Your task to perform on an android device: Add acer nitro to the cart on bestbuy.com, then select checkout. Image 0: 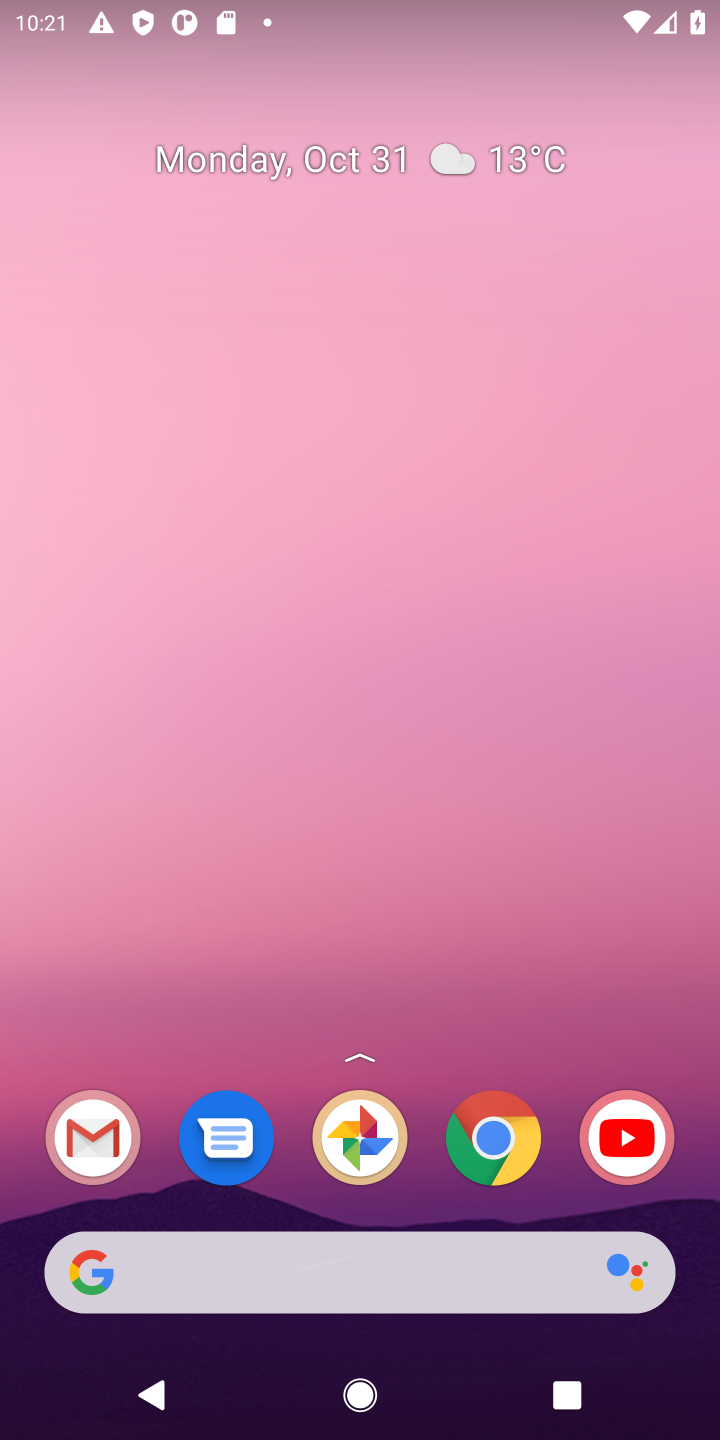
Step 0: click (499, 1153)
Your task to perform on an android device: Add acer nitro to the cart on bestbuy.com, then select checkout. Image 1: 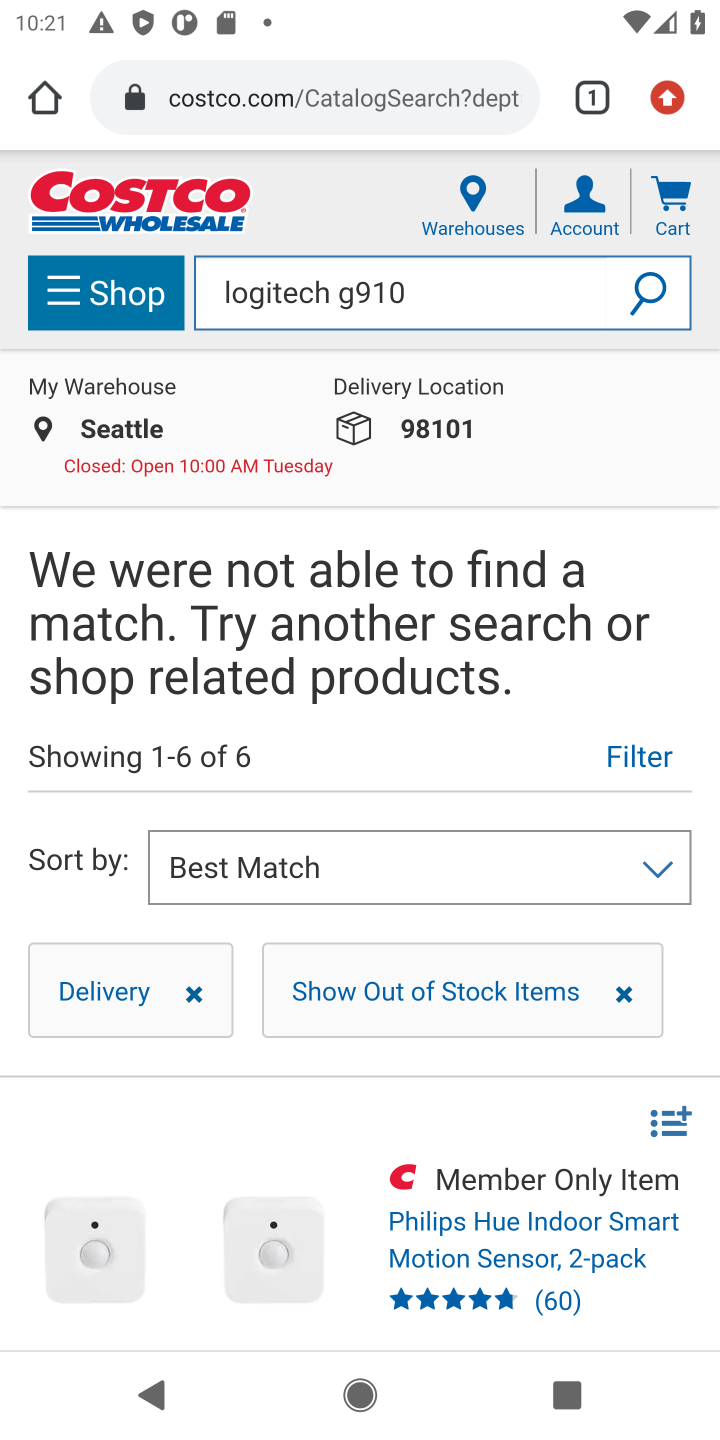
Step 1: click (231, 82)
Your task to perform on an android device: Add acer nitro to the cart on bestbuy.com, then select checkout. Image 2: 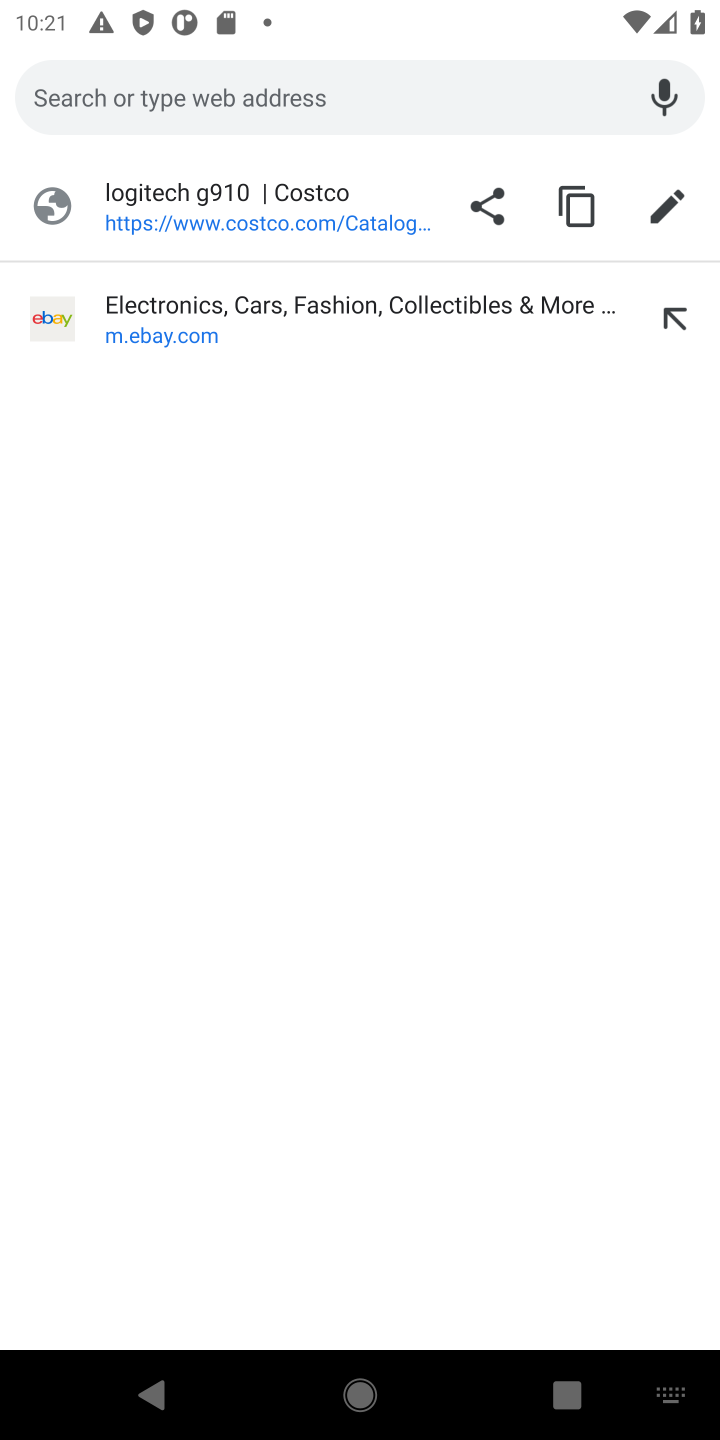
Step 2: type "bestbuy"
Your task to perform on an android device: Add acer nitro to the cart on bestbuy.com, then select checkout. Image 3: 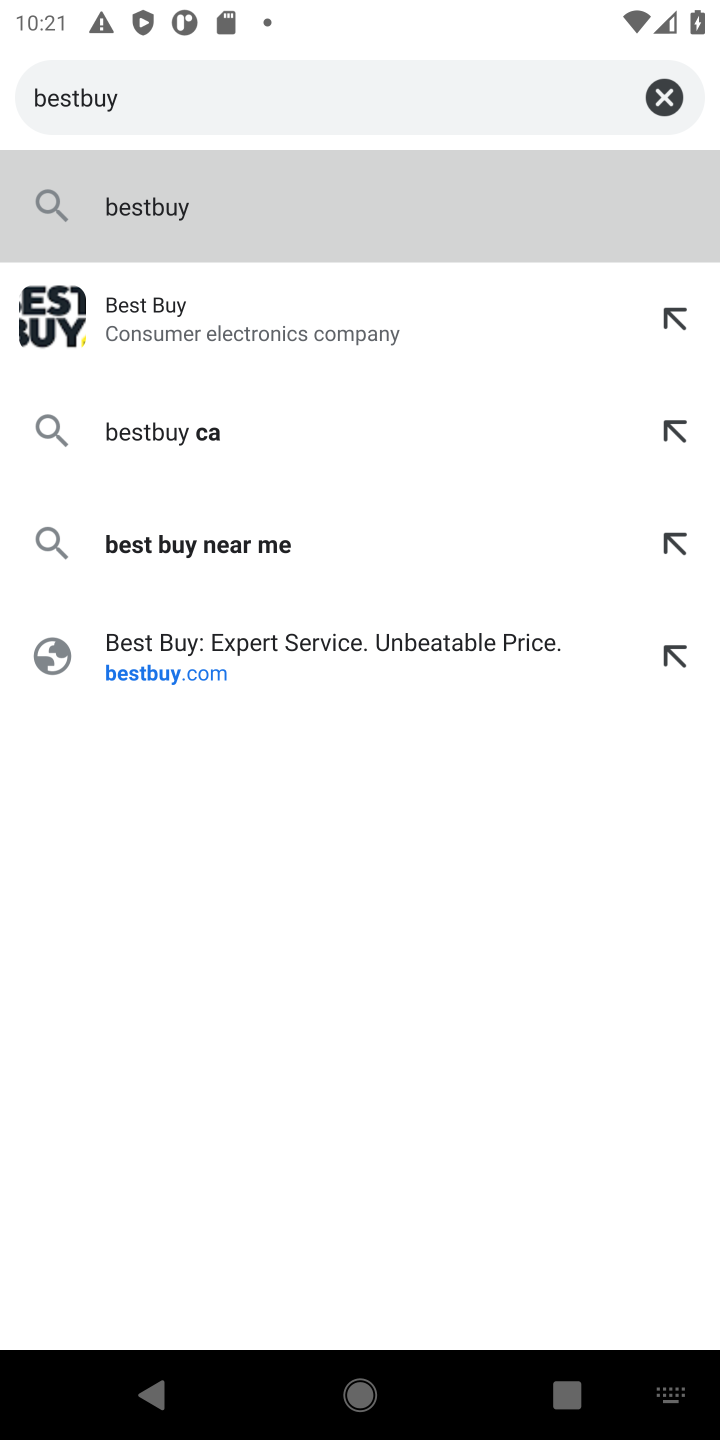
Step 3: click (217, 318)
Your task to perform on an android device: Add acer nitro to the cart on bestbuy.com, then select checkout. Image 4: 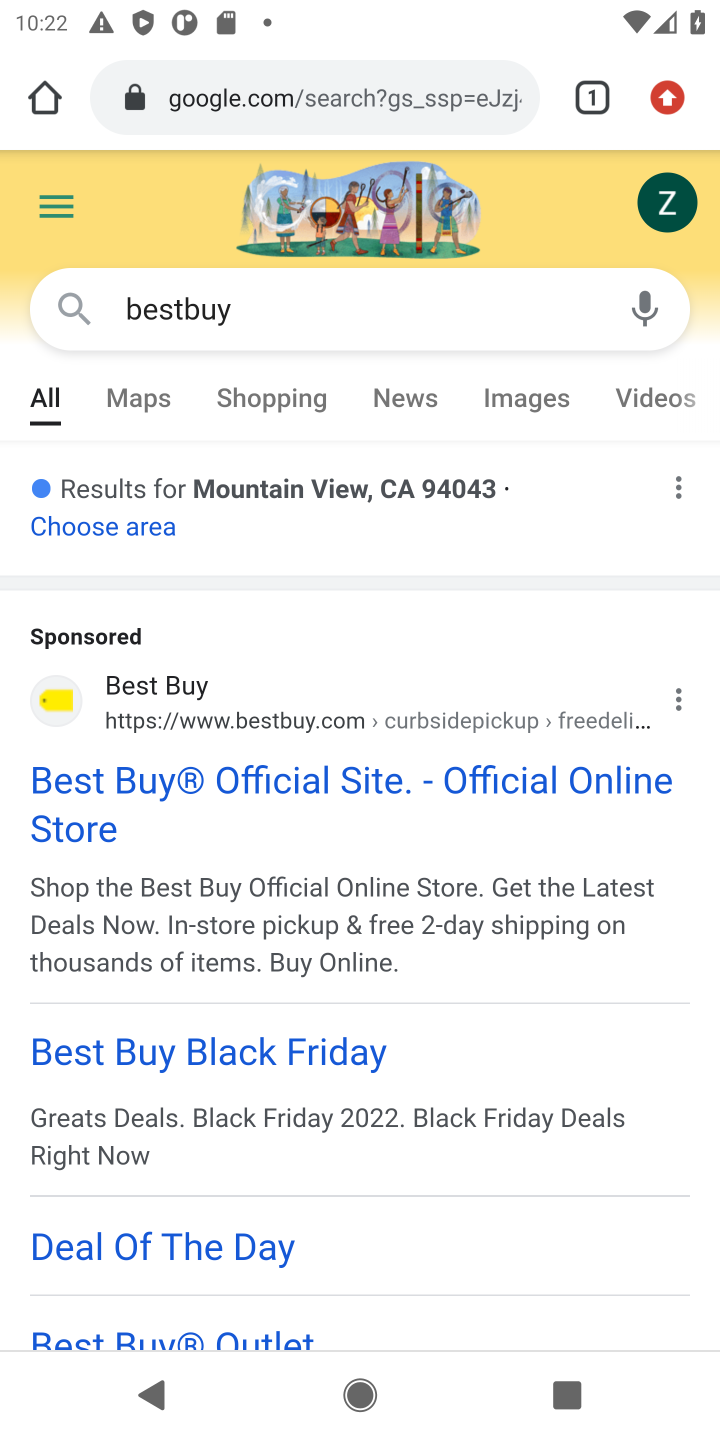
Step 4: click (265, 800)
Your task to perform on an android device: Add acer nitro to the cart on bestbuy.com, then select checkout. Image 5: 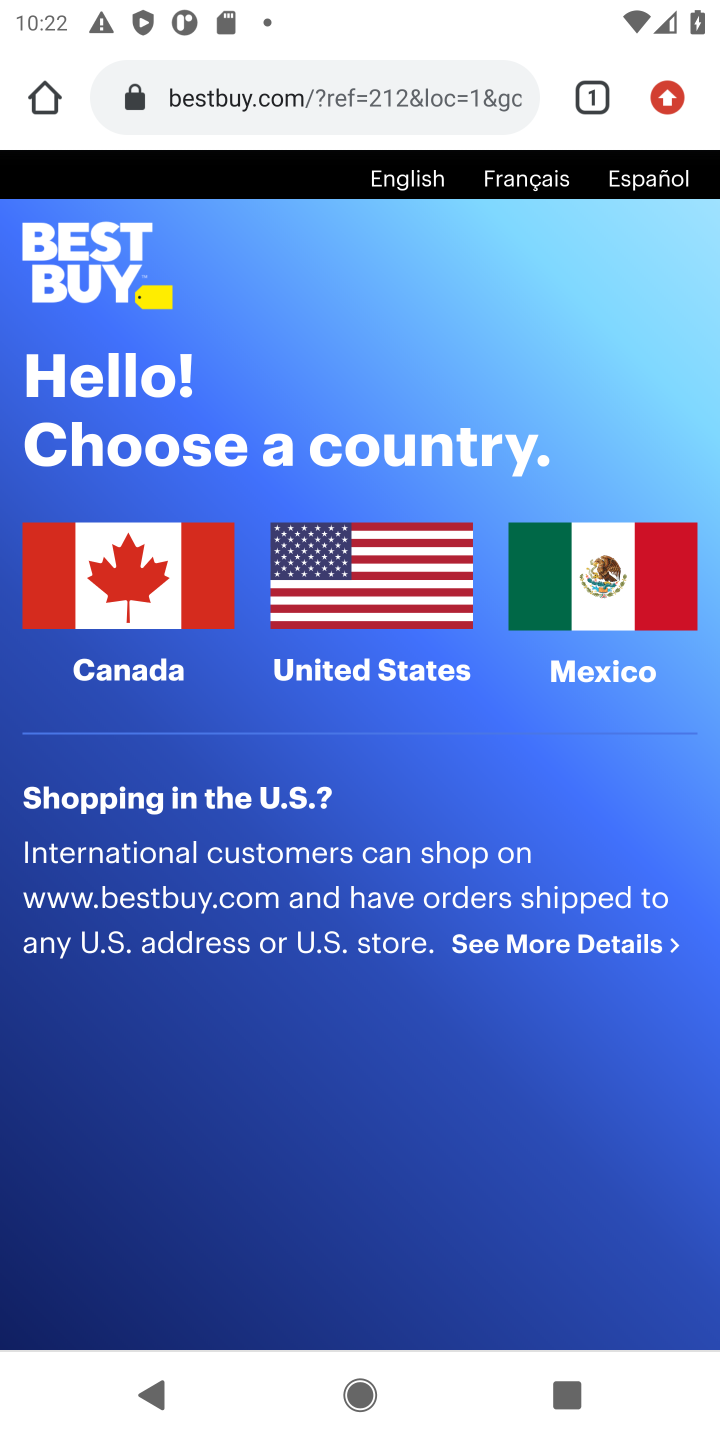
Step 5: click (335, 631)
Your task to perform on an android device: Add acer nitro to the cart on bestbuy.com, then select checkout. Image 6: 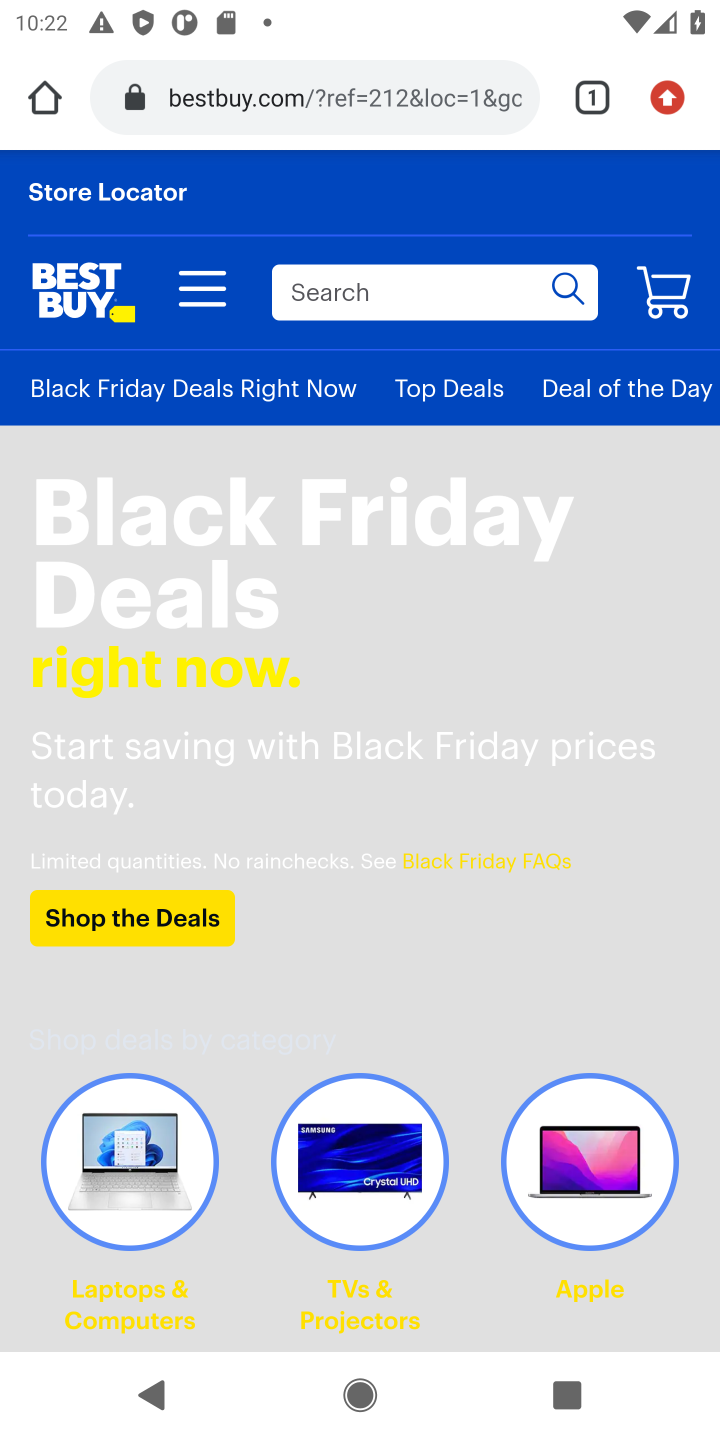
Step 6: click (402, 300)
Your task to perform on an android device: Add acer nitro to the cart on bestbuy.com, then select checkout. Image 7: 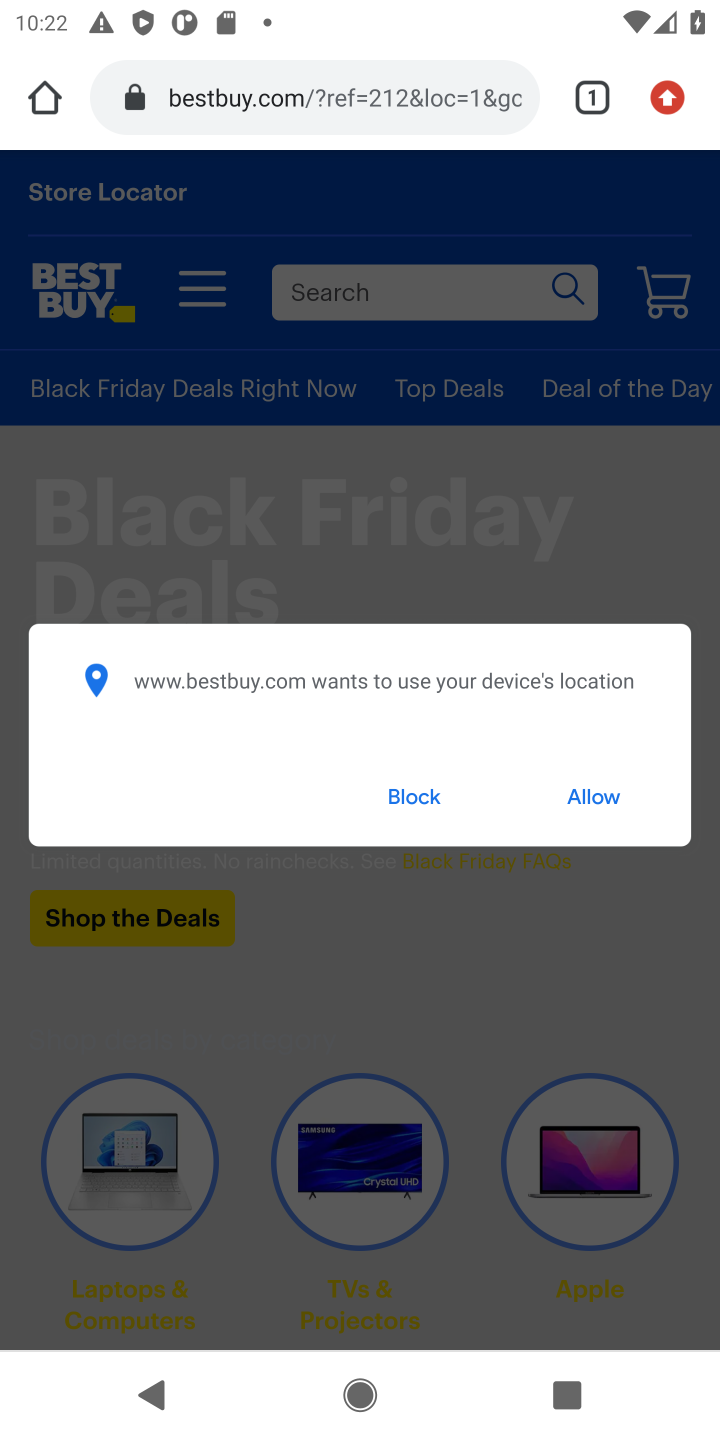
Step 7: click (577, 802)
Your task to perform on an android device: Add acer nitro to the cart on bestbuy.com, then select checkout. Image 8: 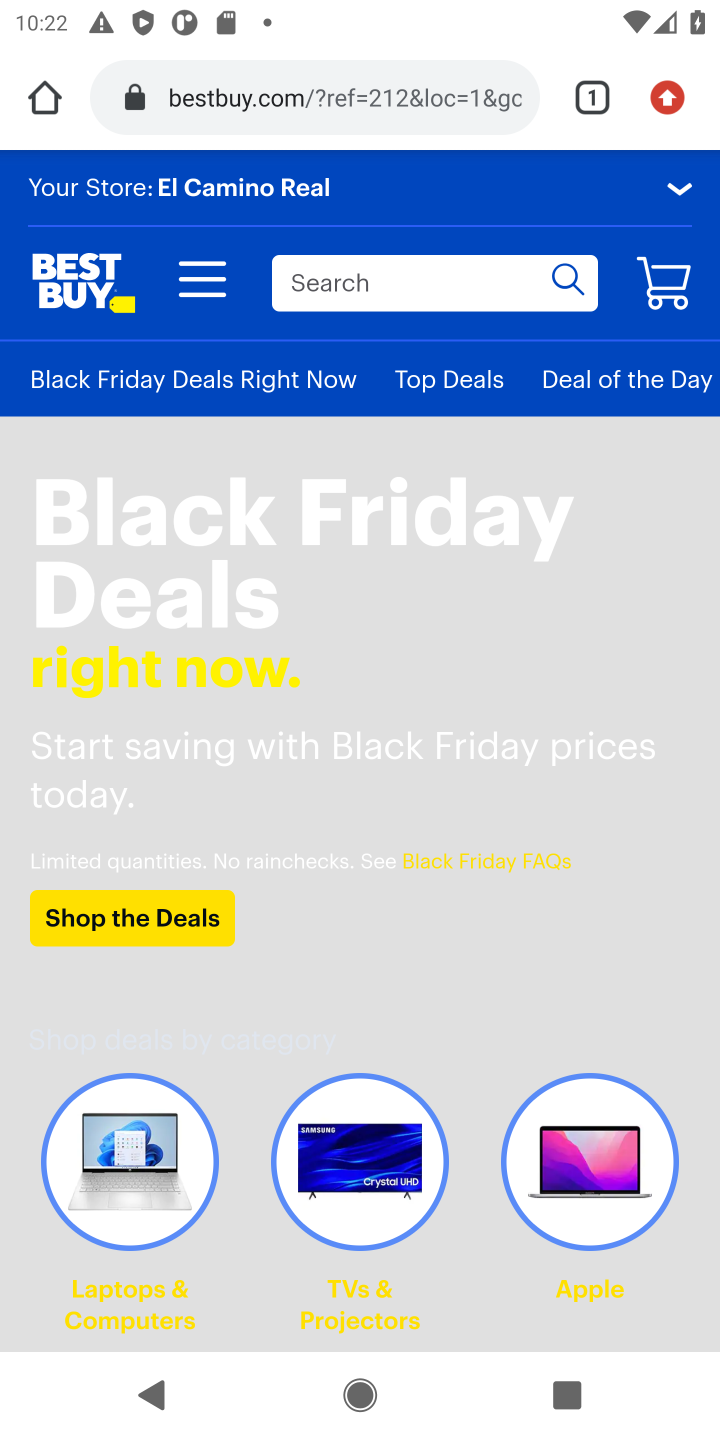
Step 8: click (317, 297)
Your task to perform on an android device: Add acer nitro to the cart on bestbuy.com, then select checkout. Image 9: 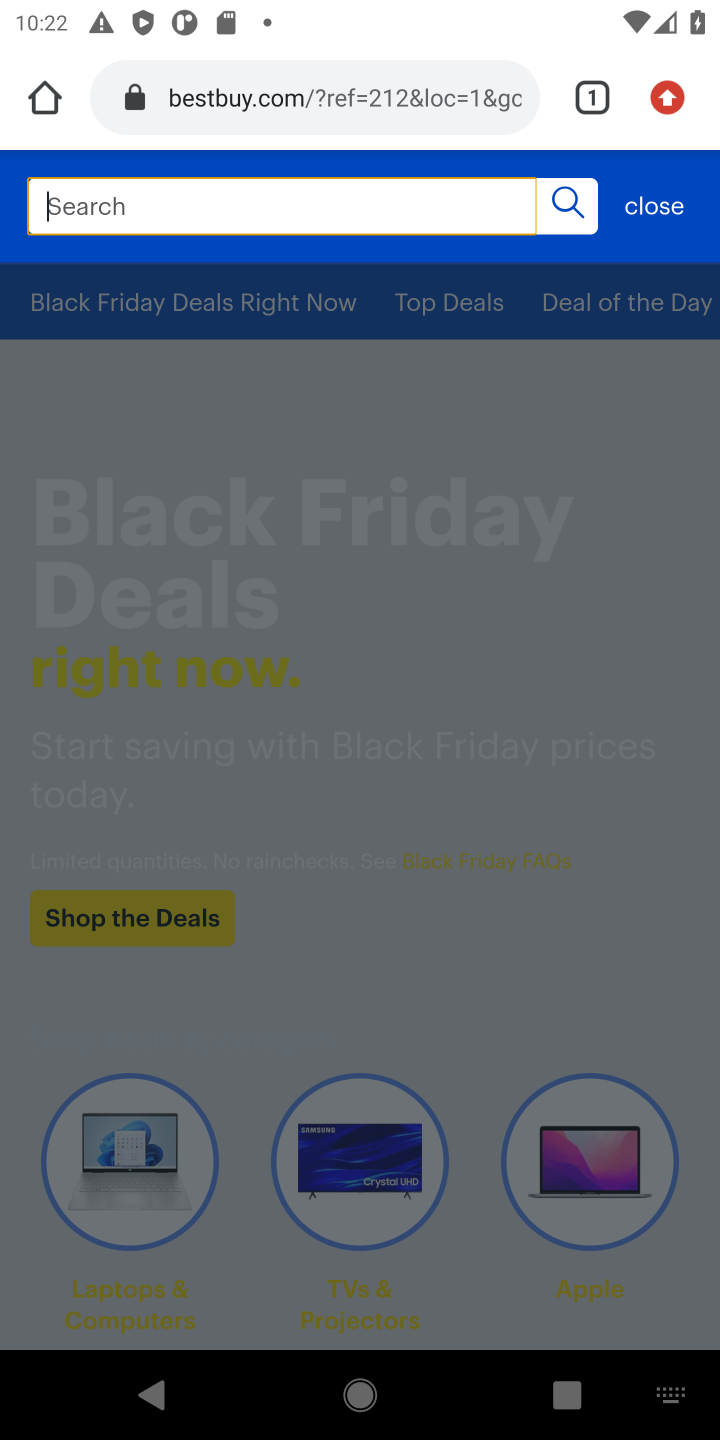
Step 9: type "acer nitro"
Your task to perform on an android device: Add acer nitro to the cart on bestbuy.com, then select checkout. Image 10: 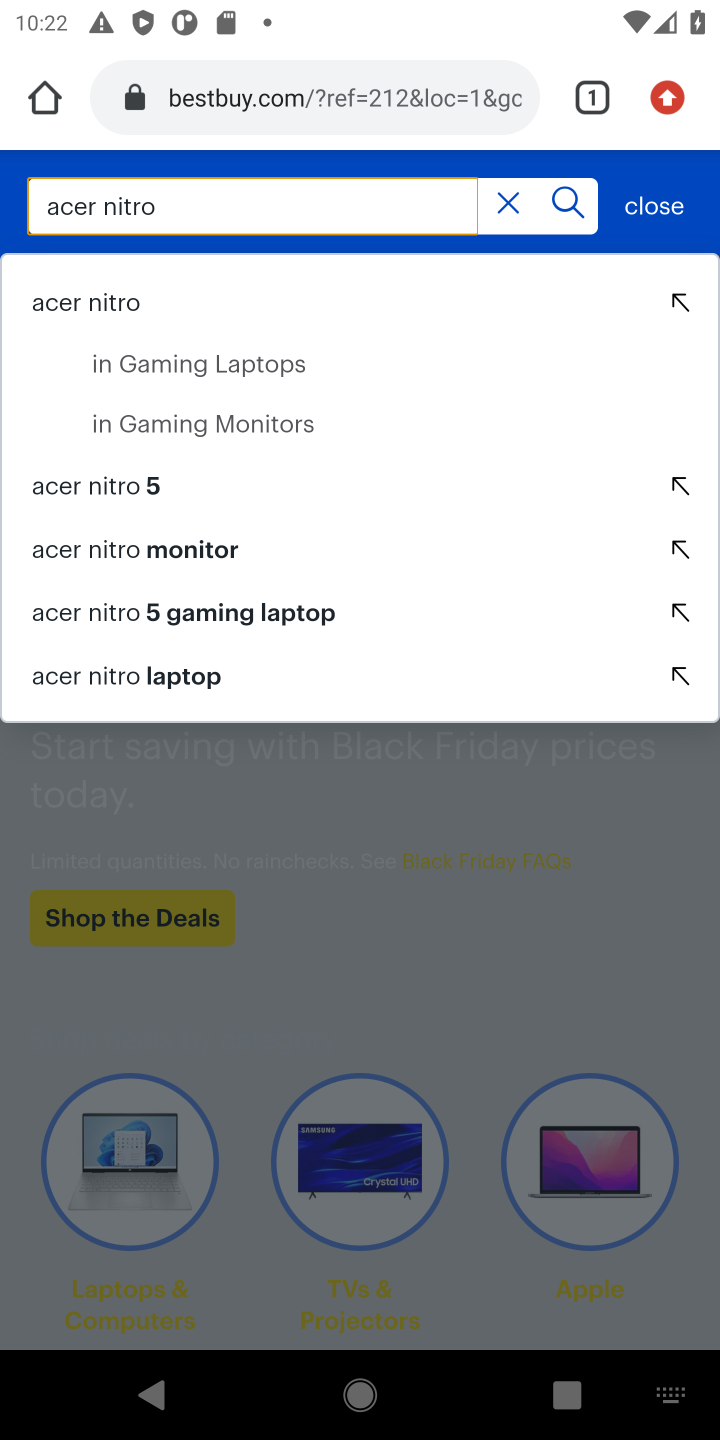
Step 10: click (72, 306)
Your task to perform on an android device: Add acer nitro to the cart on bestbuy.com, then select checkout. Image 11: 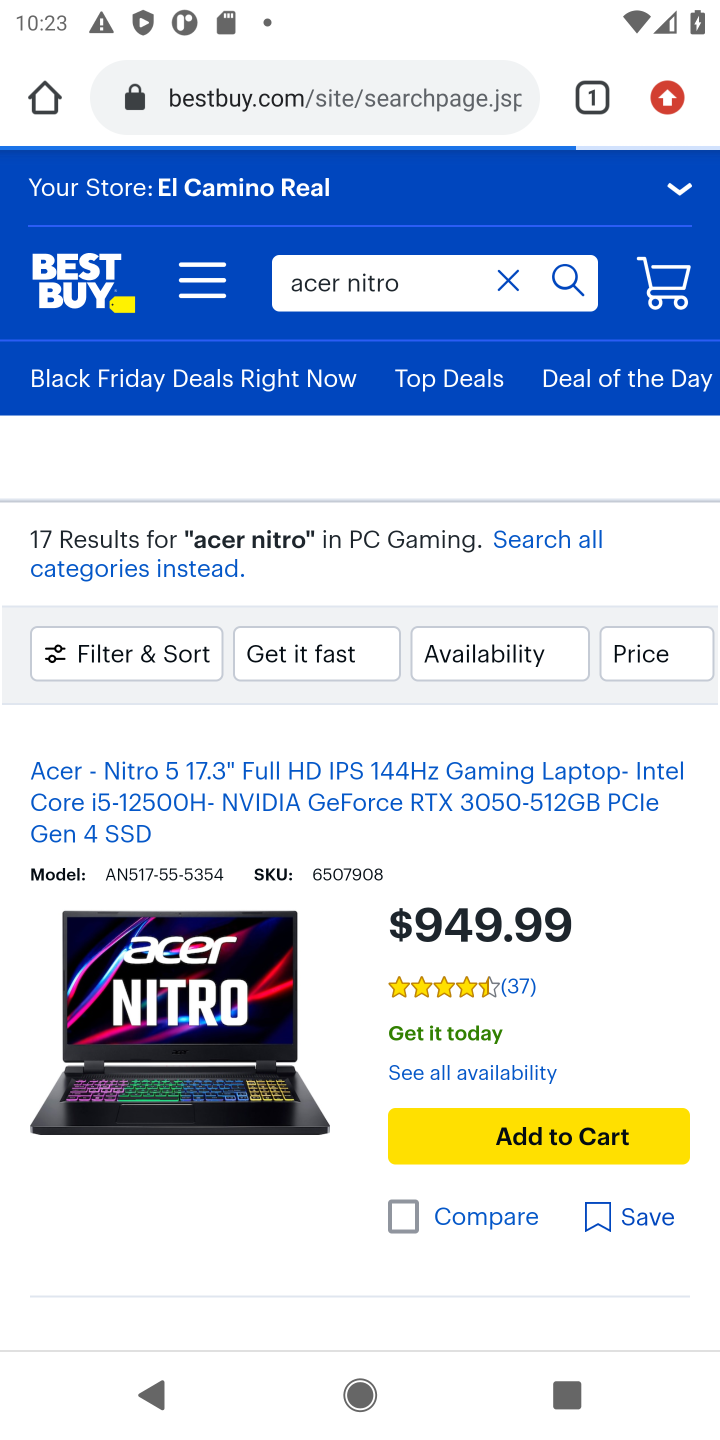
Step 11: click (111, 807)
Your task to perform on an android device: Add acer nitro to the cart on bestbuy.com, then select checkout. Image 12: 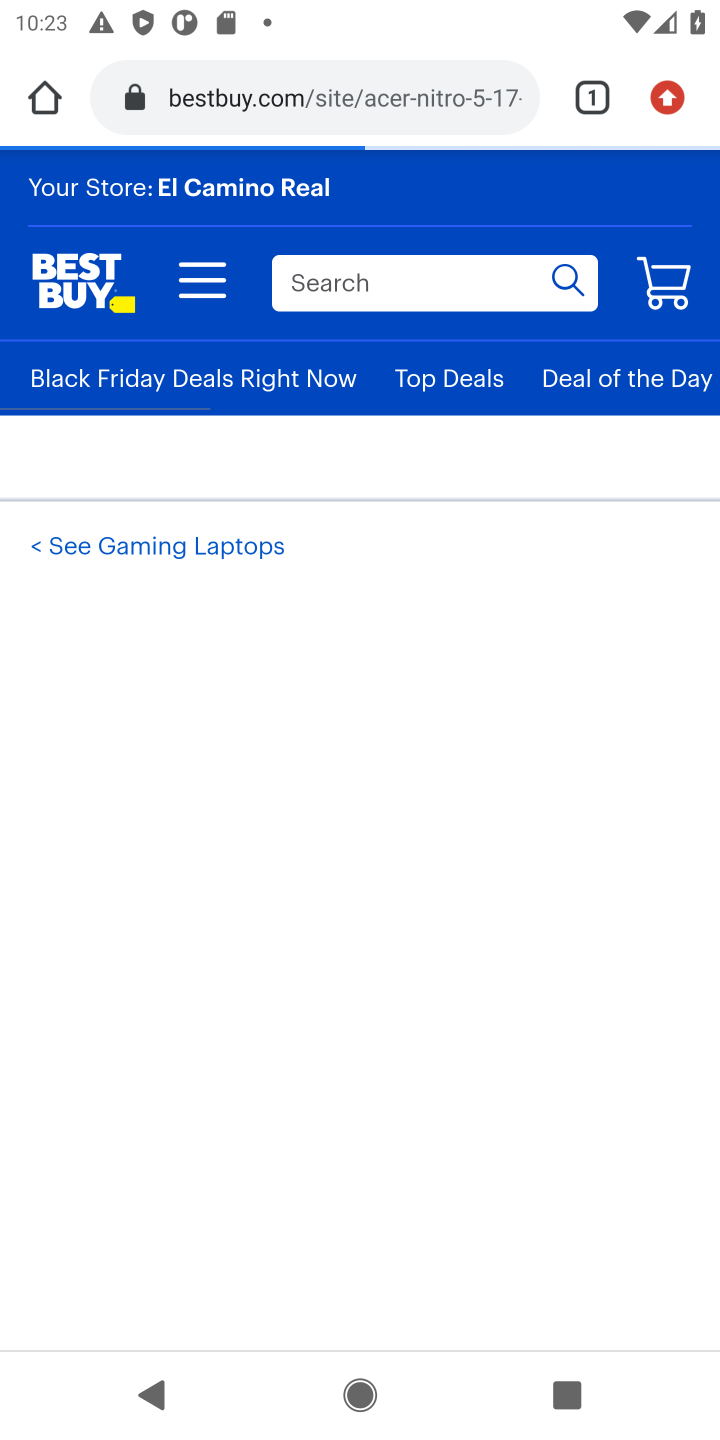
Step 12: click (611, 1126)
Your task to perform on an android device: Add acer nitro to the cart on bestbuy.com, then select checkout. Image 13: 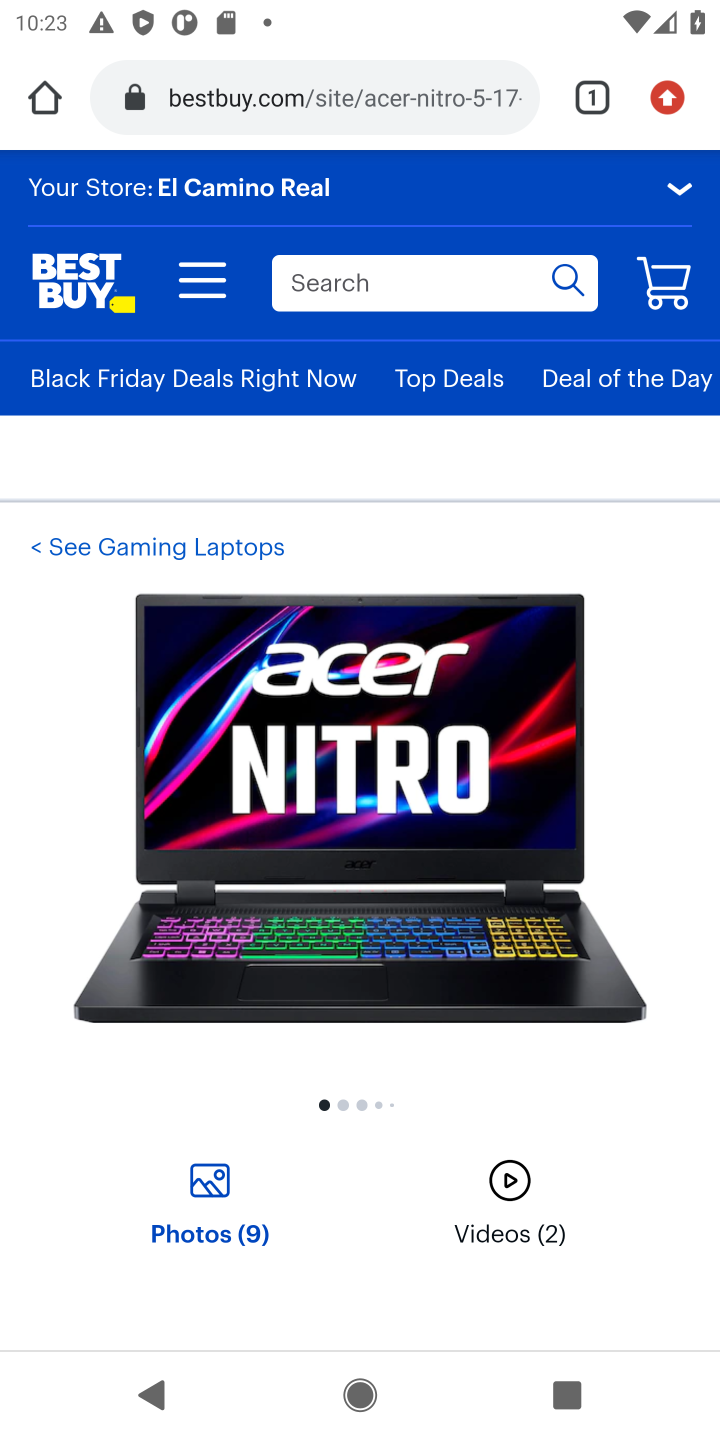
Step 13: drag from (304, 1232) to (483, 498)
Your task to perform on an android device: Add acer nitro to the cart on bestbuy.com, then select checkout. Image 14: 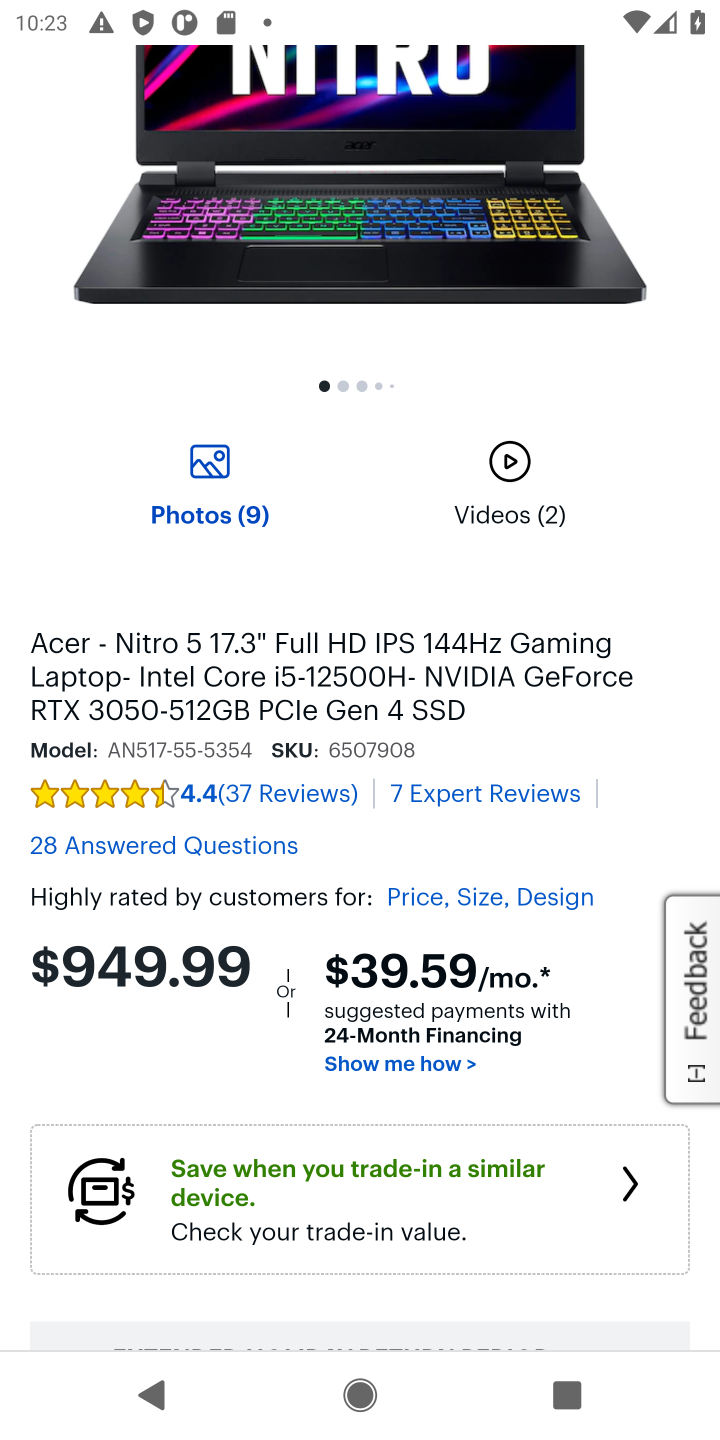
Step 14: drag from (352, 837) to (406, 245)
Your task to perform on an android device: Add acer nitro to the cart on bestbuy.com, then select checkout. Image 15: 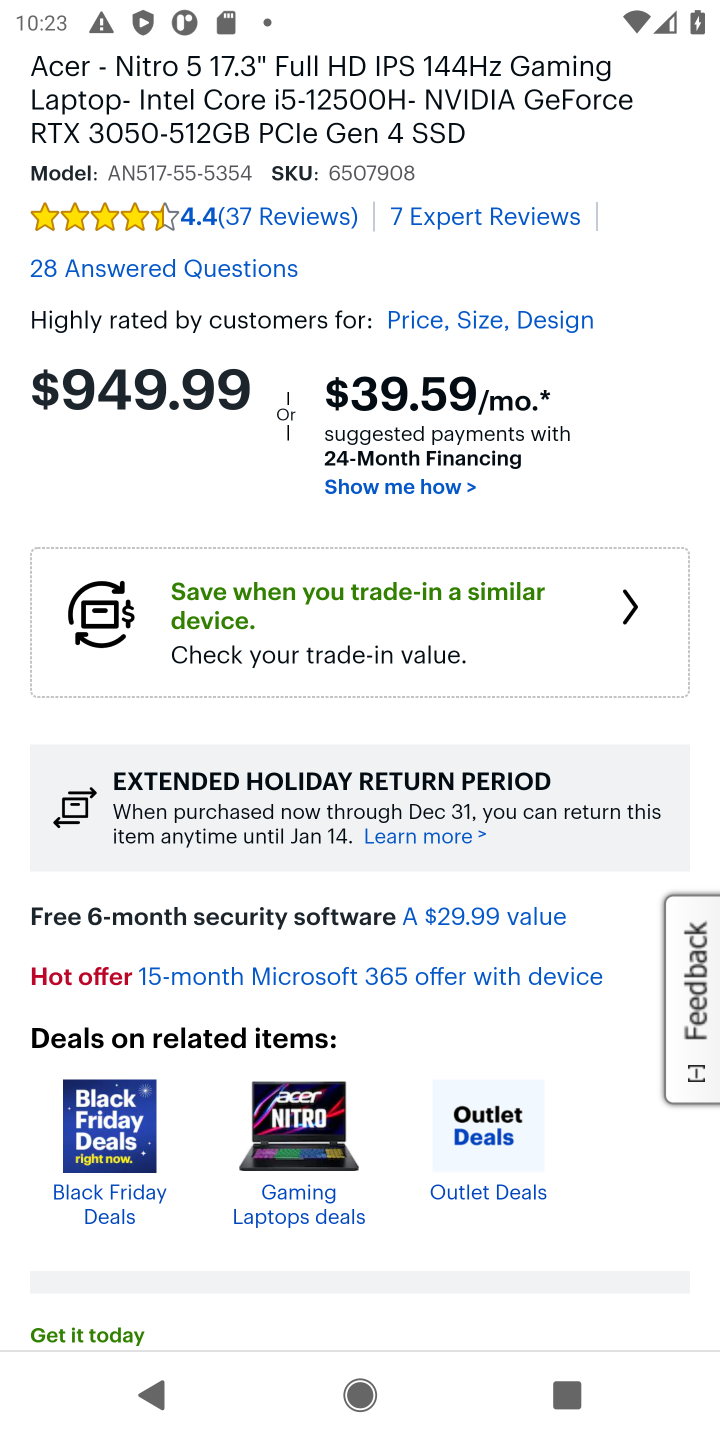
Step 15: drag from (227, 1000) to (258, 234)
Your task to perform on an android device: Add acer nitro to the cart on bestbuy.com, then select checkout. Image 16: 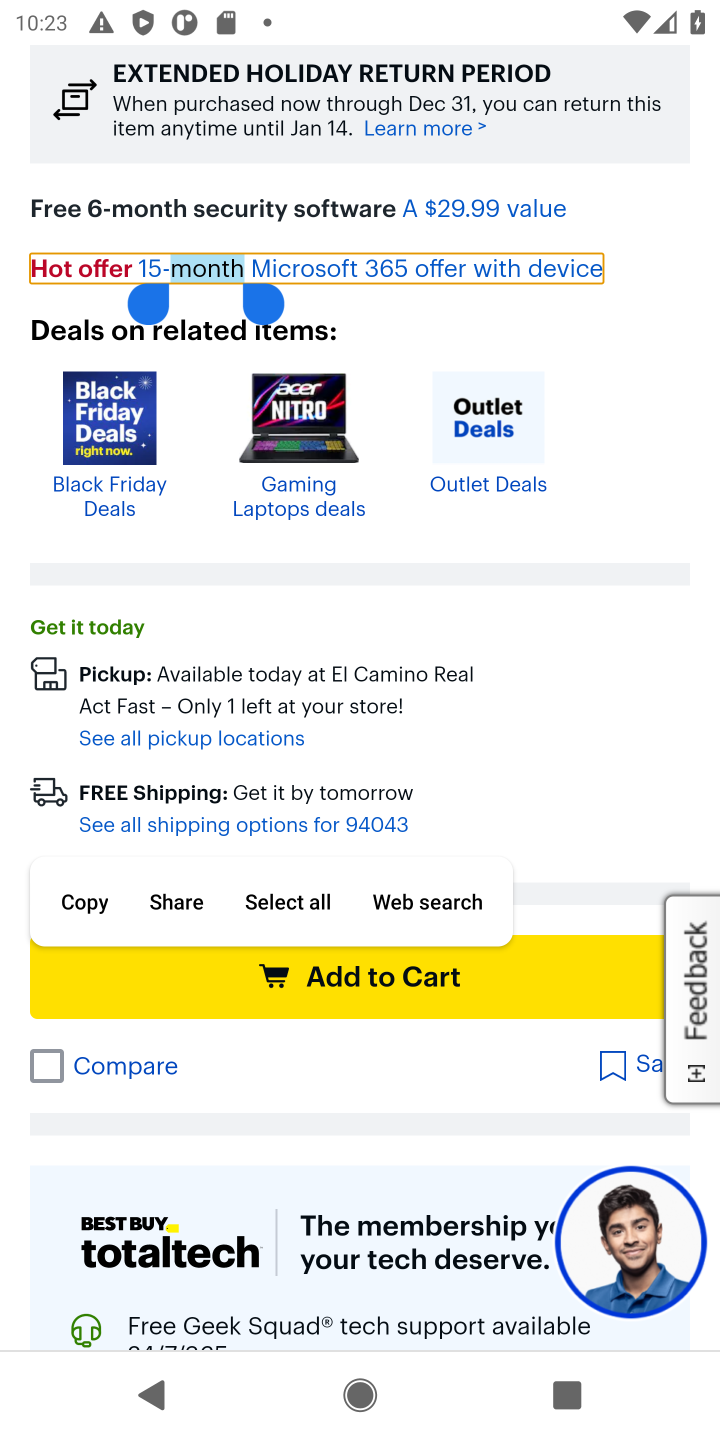
Step 16: click (500, 991)
Your task to perform on an android device: Add acer nitro to the cart on bestbuy.com, then select checkout. Image 17: 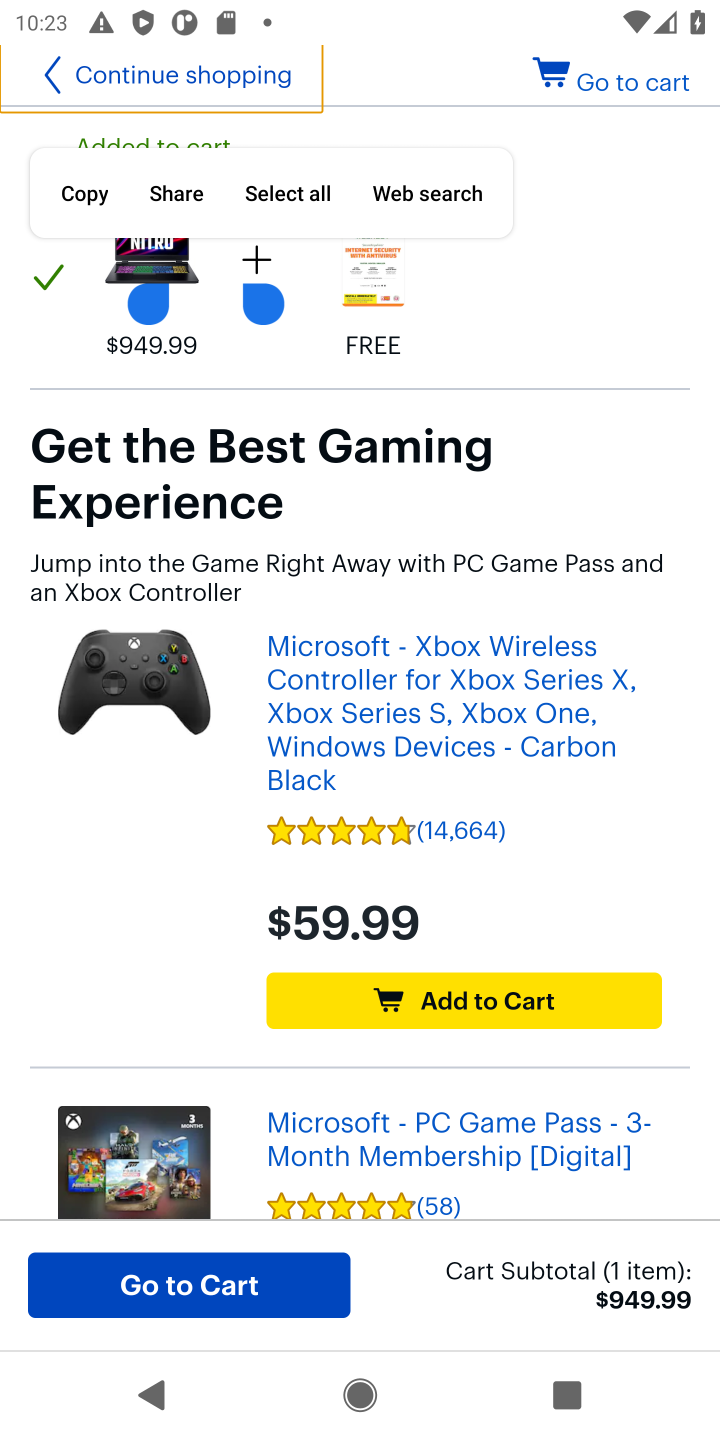
Step 17: task complete